Your task to perform on an android device: Open the calendar app, open the side menu, and click the "Day" option Image 0: 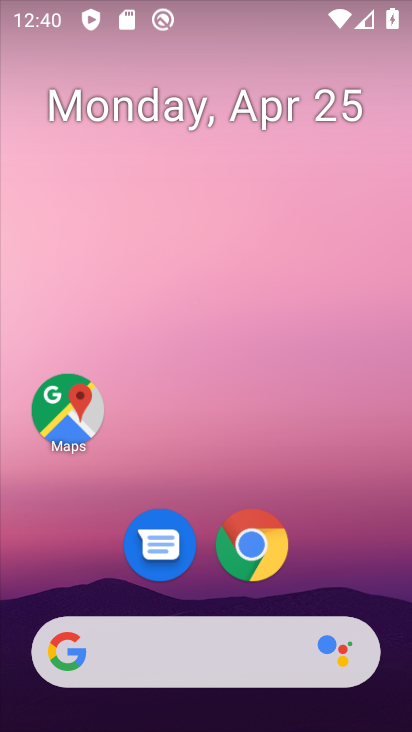
Step 0: drag from (283, 465) to (261, 107)
Your task to perform on an android device: Open the calendar app, open the side menu, and click the "Day" option Image 1: 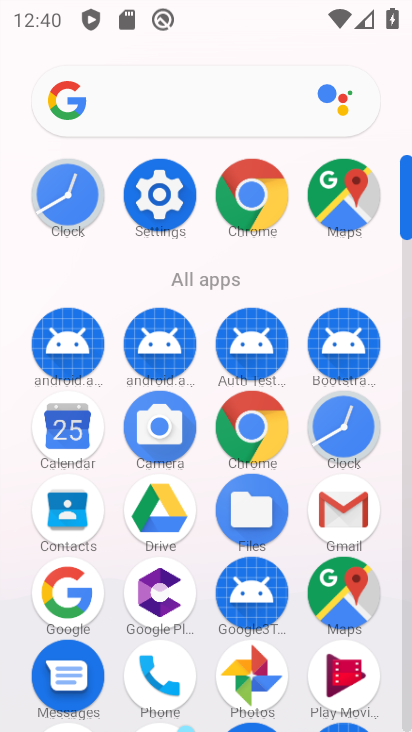
Step 1: click (74, 413)
Your task to perform on an android device: Open the calendar app, open the side menu, and click the "Day" option Image 2: 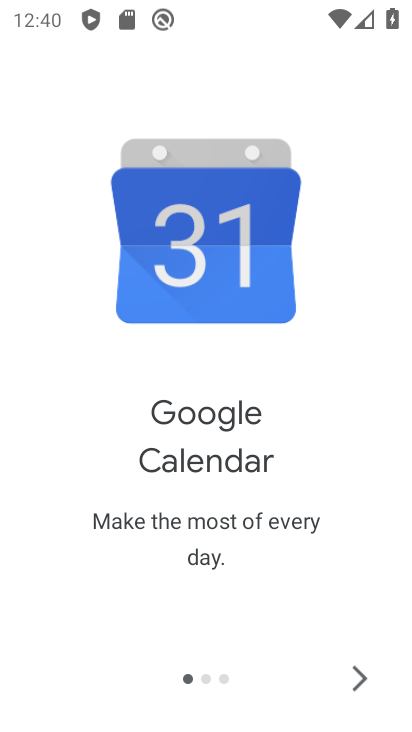
Step 2: click (356, 664)
Your task to perform on an android device: Open the calendar app, open the side menu, and click the "Day" option Image 3: 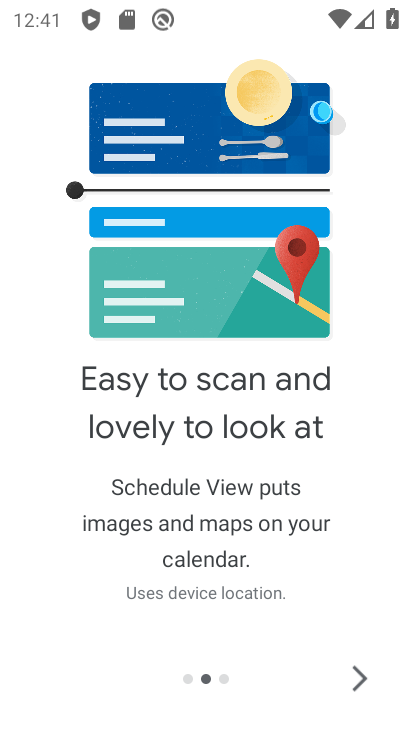
Step 3: click (356, 663)
Your task to perform on an android device: Open the calendar app, open the side menu, and click the "Day" option Image 4: 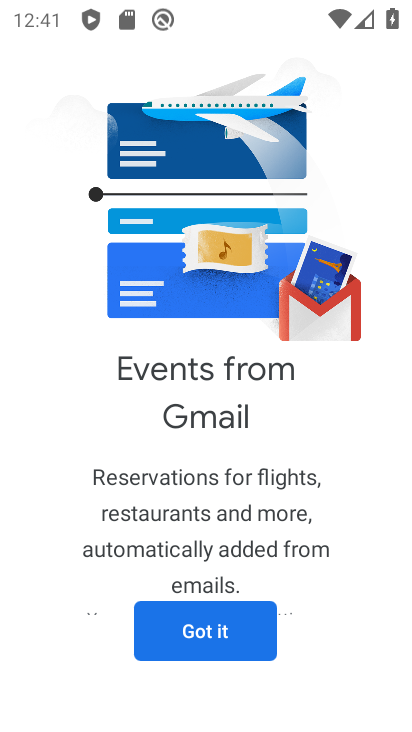
Step 4: click (191, 626)
Your task to perform on an android device: Open the calendar app, open the side menu, and click the "Day" option Image 5: 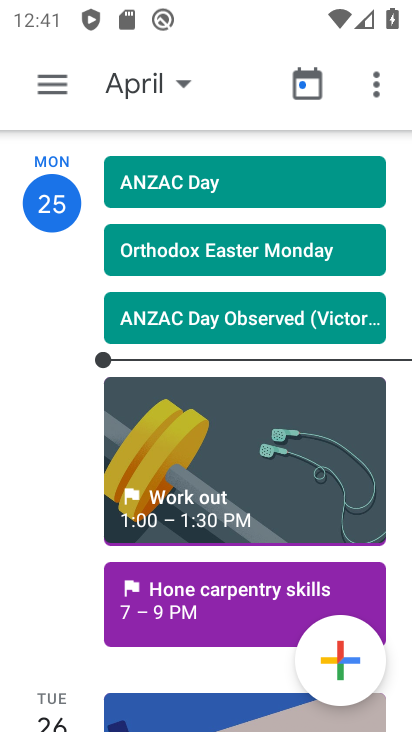
Step 5: click (53, 84)
Your task to perform on an android device: Open the calendar app, open the side menu, and click the "Day" option Image 6: 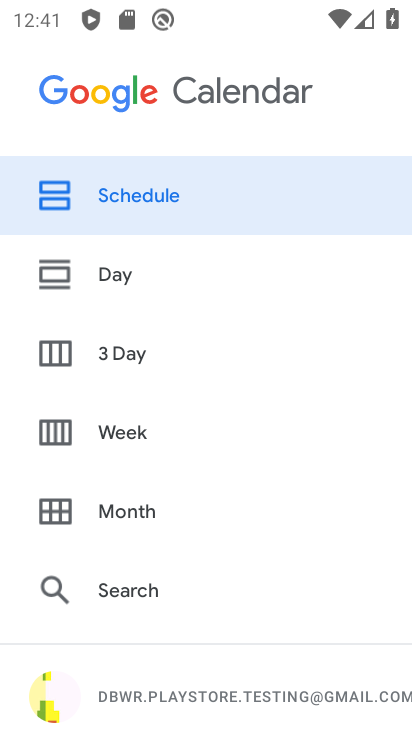
Step 6: click (94, 268)
Your task to perform on an android device: Open the calendar app, open the side menu, and click the "Day" option Image 7: 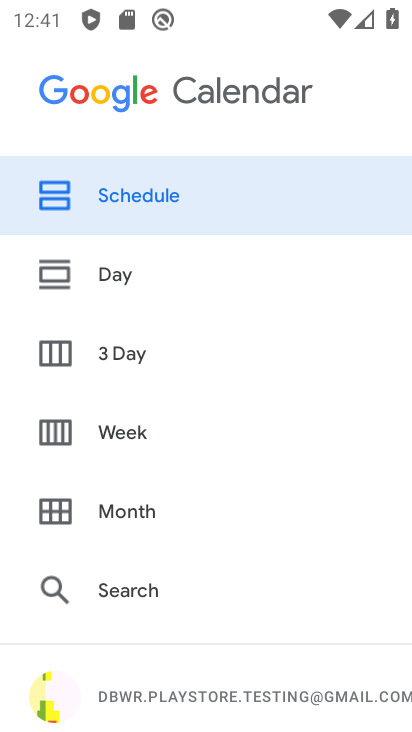
Step 7: click (94, 268)
Your task to perform on an android device: Open the calendar app, open the side menu, and click the "Day" option Image 8: 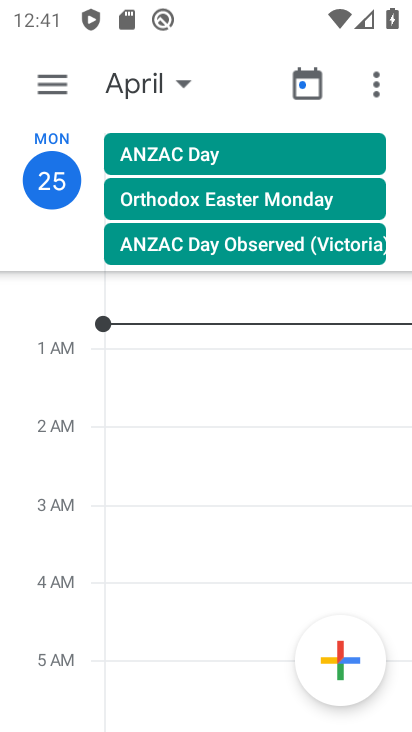
Step 8: click (46, 86)
Your task to perform on an android device: Open the calendar app, open the side menu, and click the "Day" option Image 9: 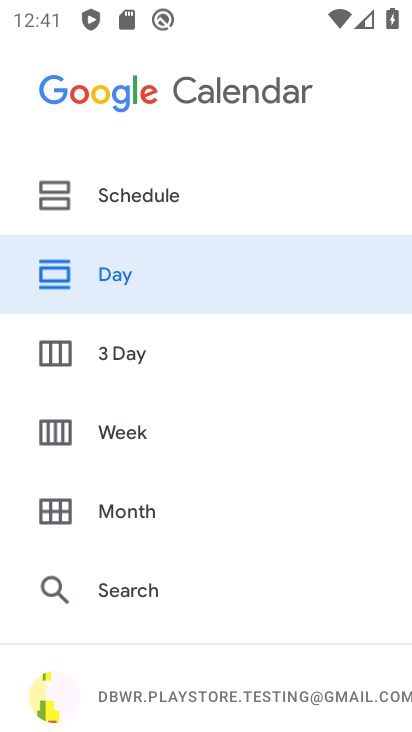
Step 9: click (129, 280)
Your task to perform on an android device: Open the calendar app, open the side menu, and click the "Day" option Image 10: 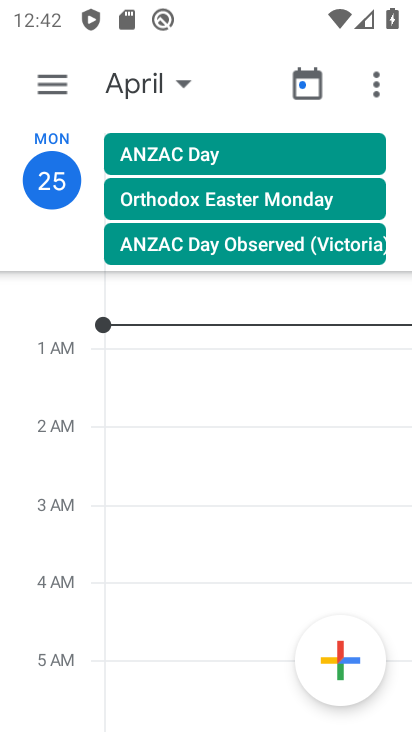
Step 10: task complete